Your task to perform on an android device: clear history in the chrome app Image 0: 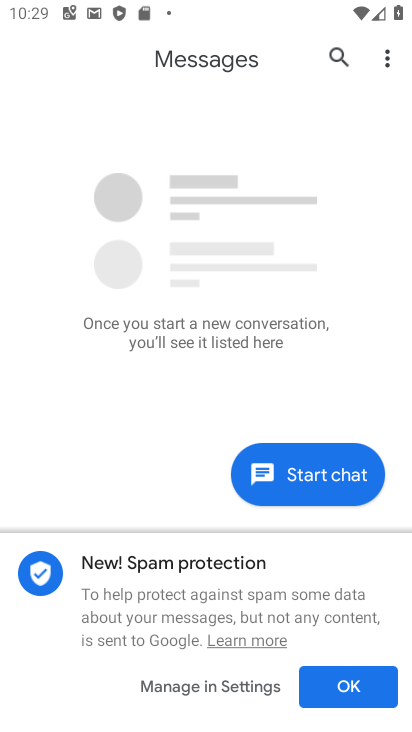
Step 0: press back button
Your task to perform on an android device: clear history in the chrome app Image 1: 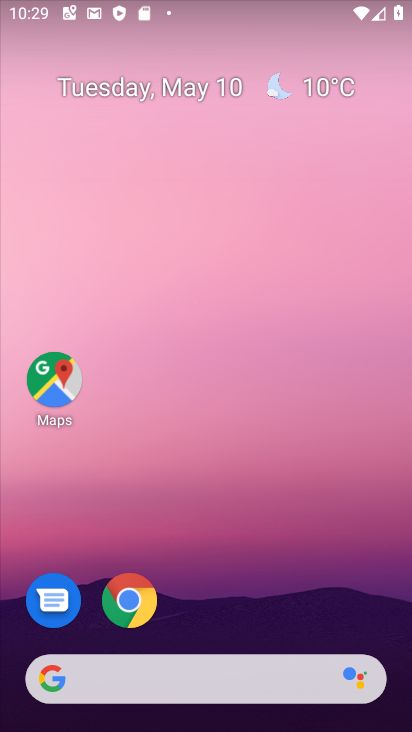
Step 1: drag from (222, 598) to (210, 17)
Your task to perform on an android device: clear history in the chrome app Image 2: 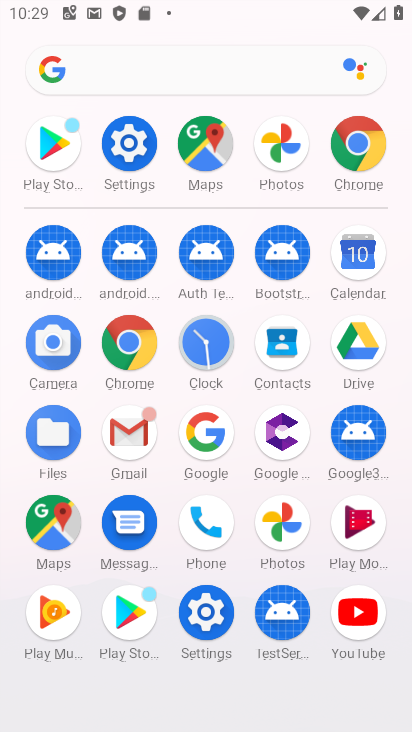
Step 2: click (350, 142)
Your task to perform on an android device: clear history in the chrome app Image 3: 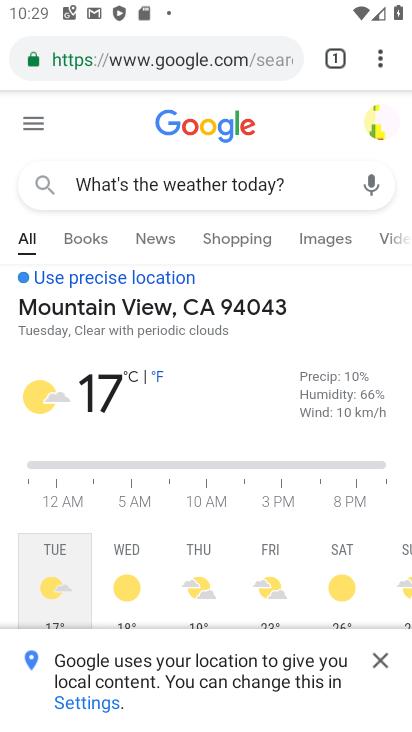
Step 3: drag from (374, 64) to (239, 409)
Your task to perform on an android device: clear history in the chrome app Image 4: 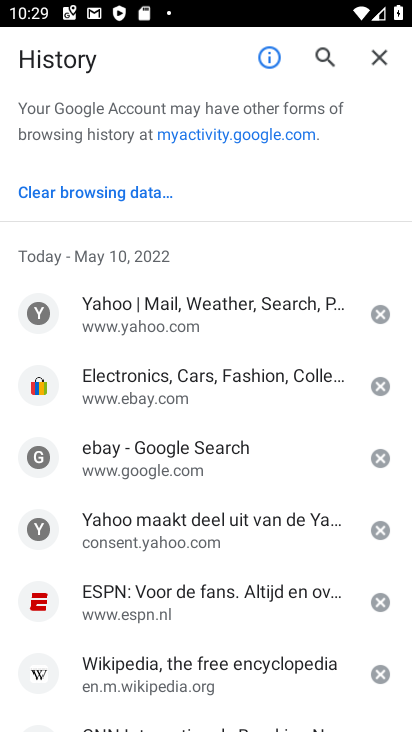
Step 4: click (124, 192)
Your task to perform on an android device: clear history in the chrome app Image 5: 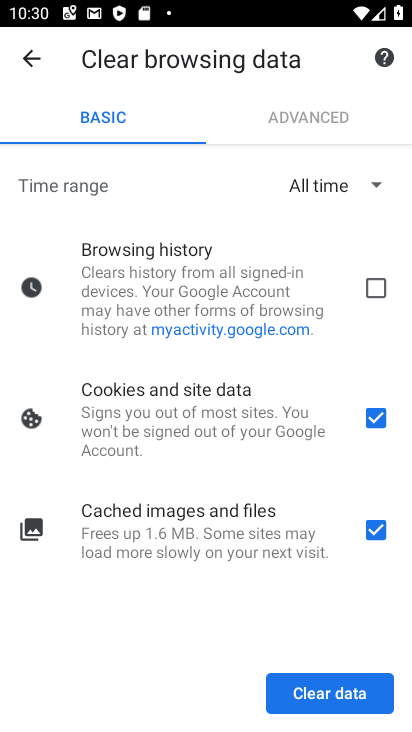
Step 5: click (373, 277)
Your task to perform on an android device: clear history in the chrome app Image 6: 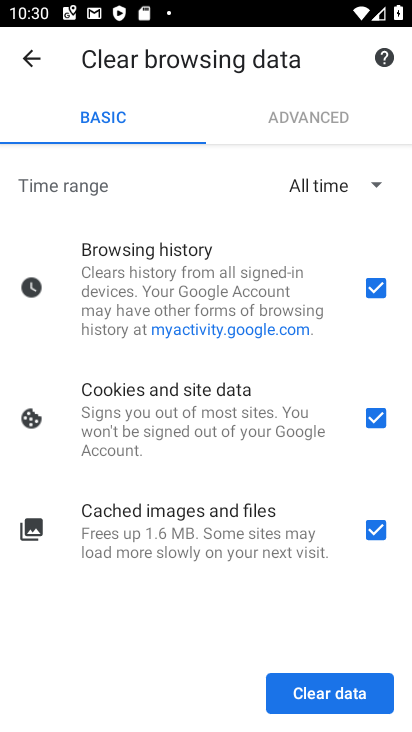
Step 6: click (338, 680)
Your task to perform on an android device: clear history in the chrome app Image 7: 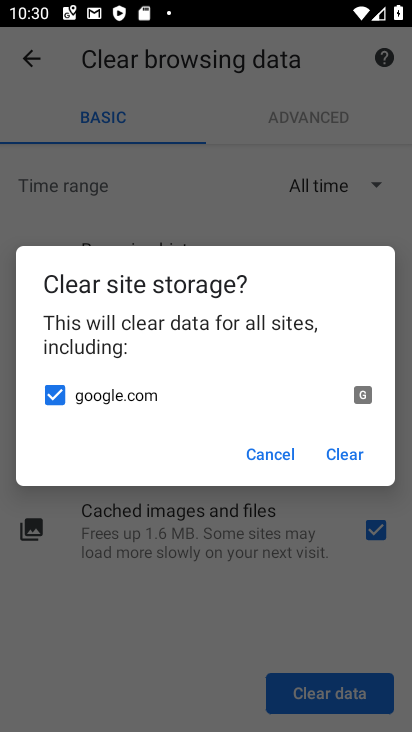
Step 7: click (340, 458)
Your task to perform on an android device: clear history in the chrome app Image 8: 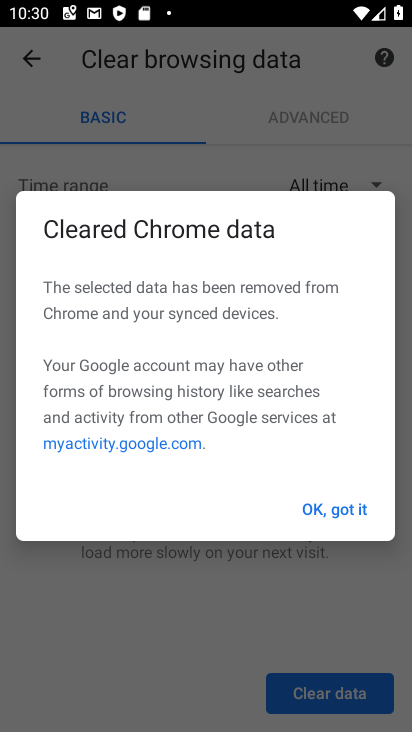
Step 8: click (338, 514)
Your task to perform on an android device: clear history in the chrome app Image 9: 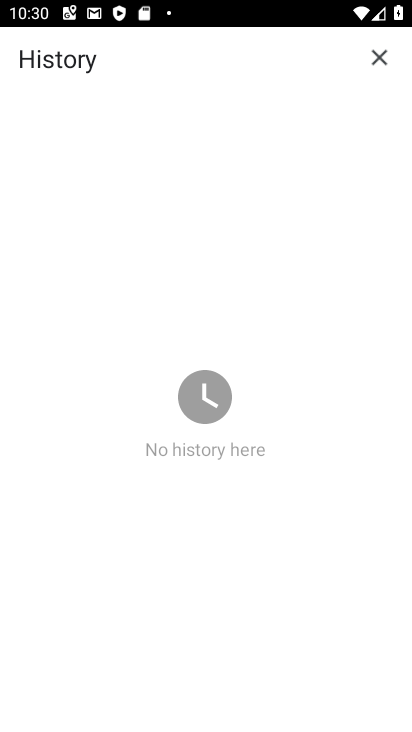
Step 9: task complete